Your task to perform on an android device: Open sound settings Image 0: 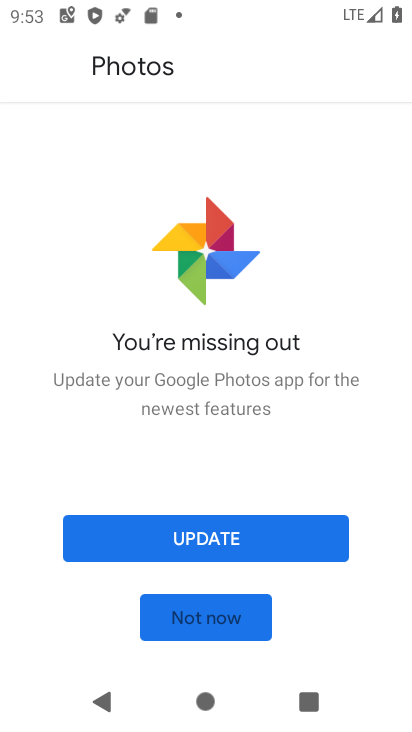
Step 0: press home button
Your task to perform on an android device: Open sound settings Image 1: 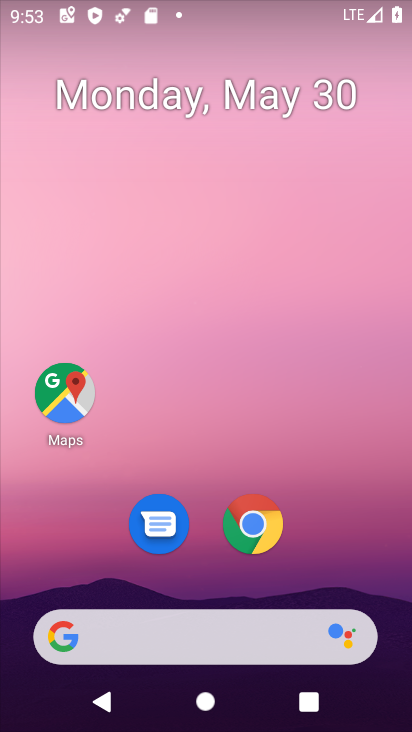
Step 1: drag from (274, 460) to (276, 43)
Your task to perform on an android device: Open sound settings Image 2: 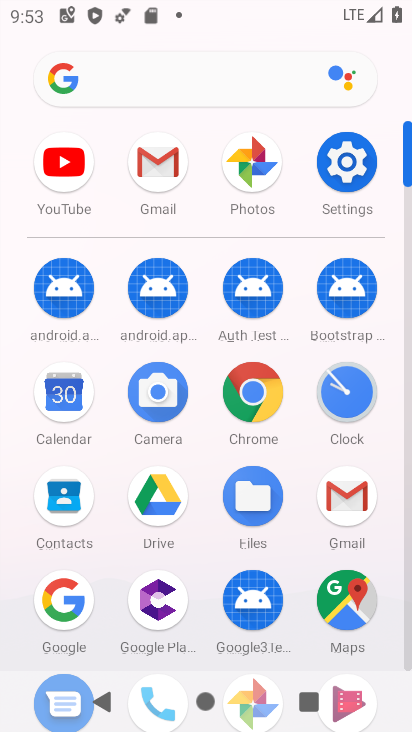
Step 2: click (341, 164)
Your task to perform on an android device: Open sound settings Image 3: 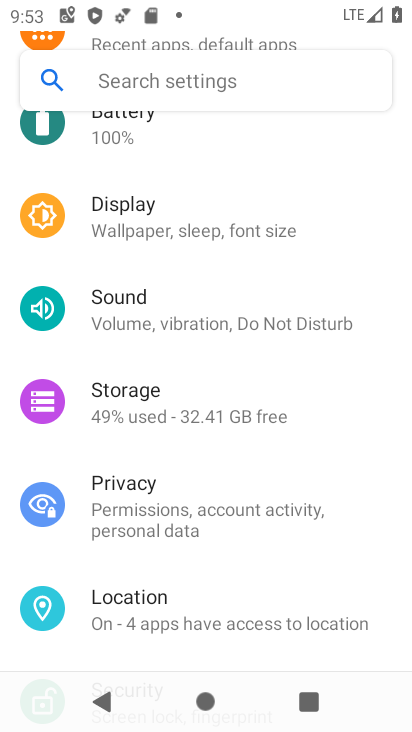
Step 3: click (234, 318)
Your task to perform on an android device: Open sound settings Image 4: 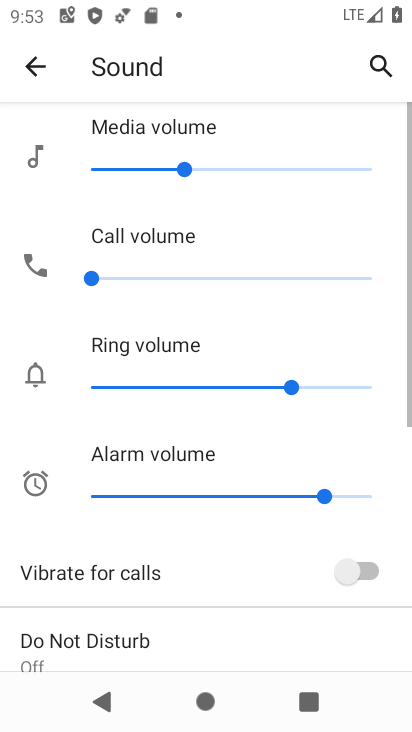
Step 4: task complete